Your task to perform on an android device: Show me popular videos on Youtube Image 0: 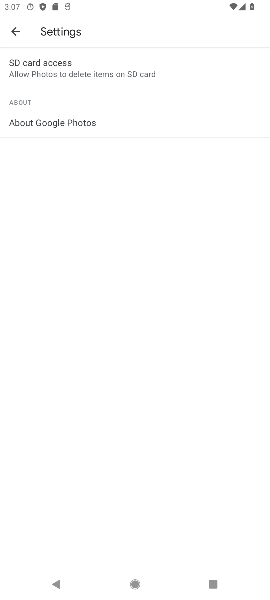
Step 0: press home button
Your task to perform on an android device: Show me popular videos on Youtube Image 1: 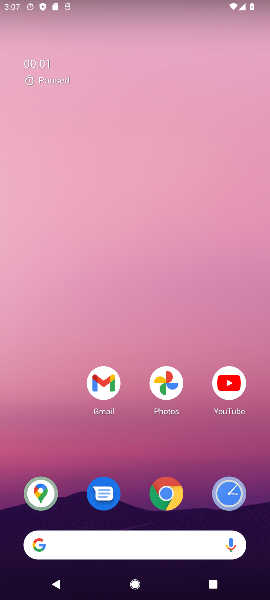
Step 1: click (227, 381)
Your task to perform on an android device: Show me popular videos on Youtube Image 2: 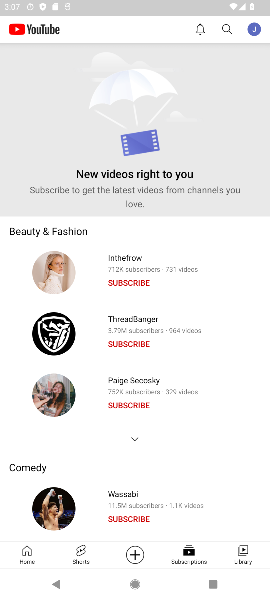
Step 2: click (11, 559)
Your task to perform on an android device: Show me popular videos on Youtube Image 3: 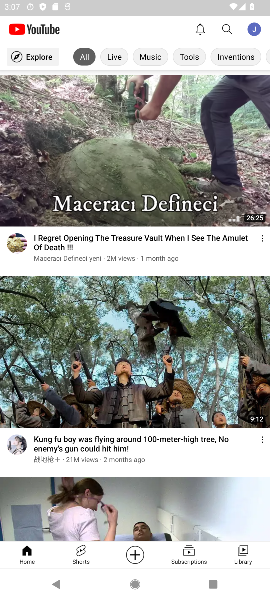
Step 3: click (227, 28)
Your task to perform on an android device: Show me popular videos on Youtube Image 4: 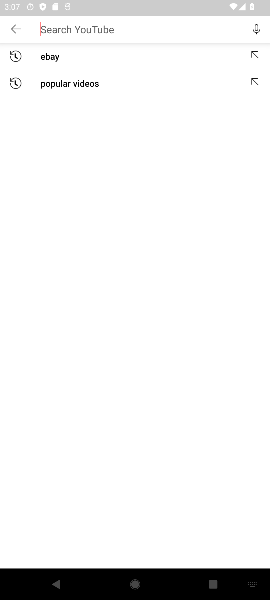
Step 4: type " popular videos"
Your task to perform on an android device: Show me popular videos on Youtube Image 5: 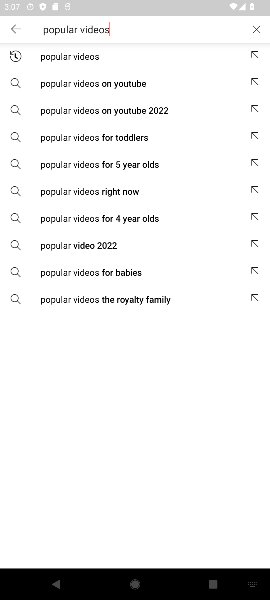
Step 5: type ""
Your task to perform on an android device: Show me popular videos on Youtube Image 6: 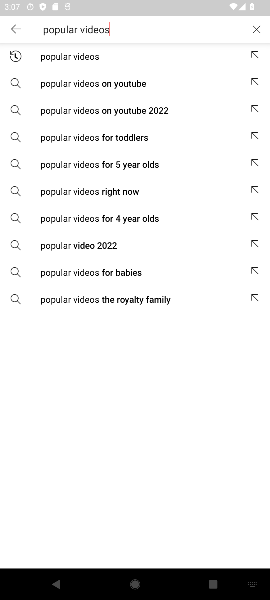
Step 6: click (51, 56)
Your task to perform on an android device: Show me popular videos on Youtube Image 7: 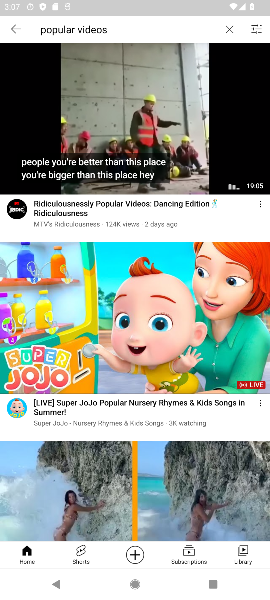
Step 7: task complete